Your task to perform on an android device: Go to Maps Image 0: 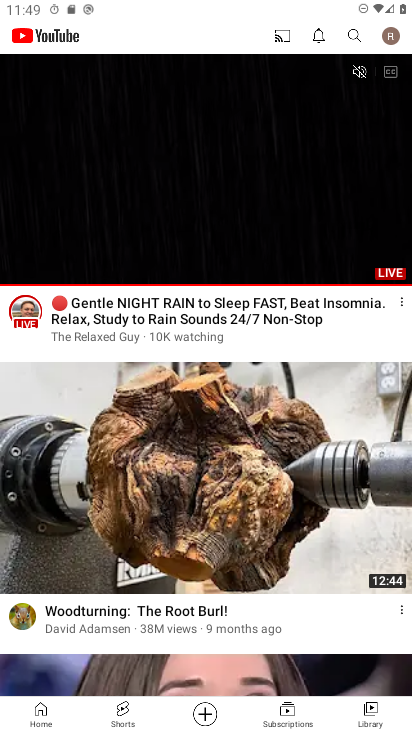
Step 0: press home button
Your task to perform on an android device: Go to Maps Image 1: 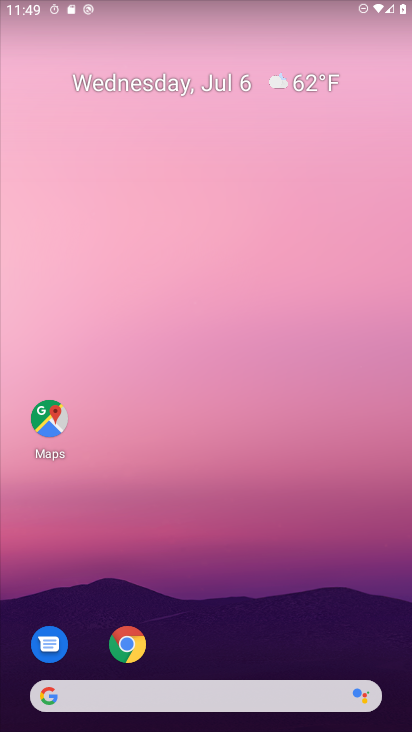
Step 1: click (47, 414)
Your task to perform on an android device: Go to Maps Image 2: 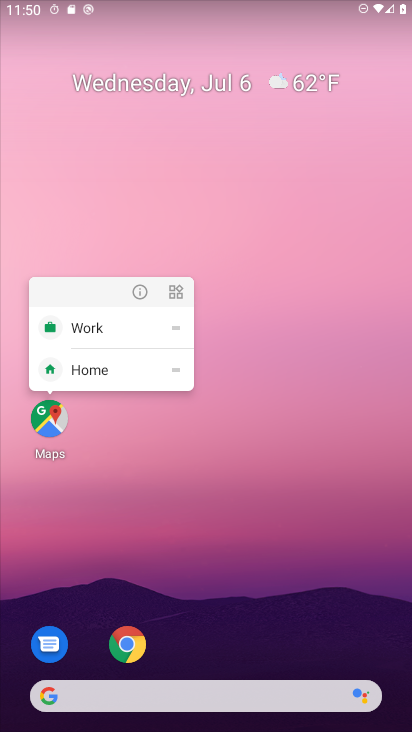
Step 2: click (10, 431)
Your task to perform on an android device: Go to Maps Image 3: 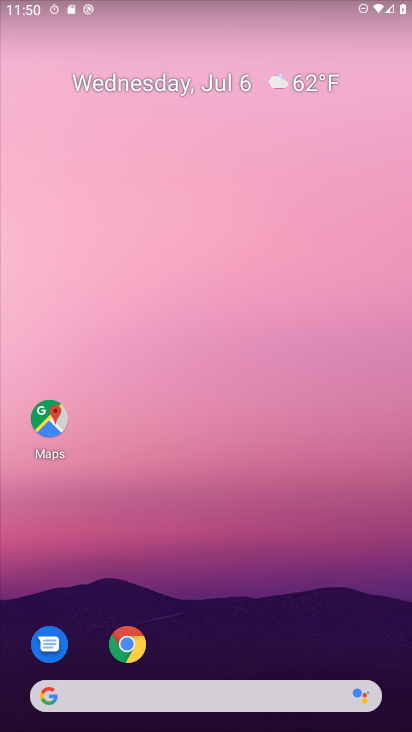
Step 3: click (38, 412)
Your task to perform on an android device: Go to Maps Image 4: 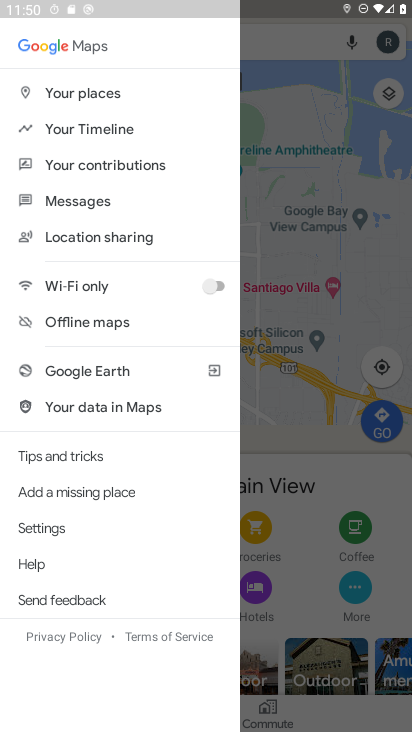
Step 4: click (285, 125)
Your task to perform on an android device: Go to Maps Image 5: 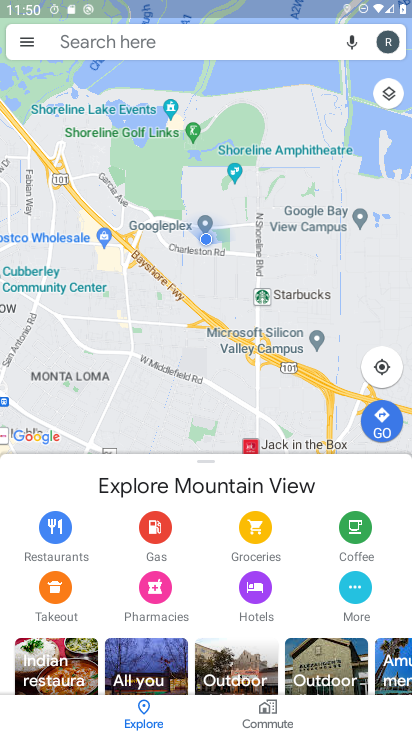
Step 5: task complete